Your task to perform on an android device: visit the assistant section in the google photos Image 0: 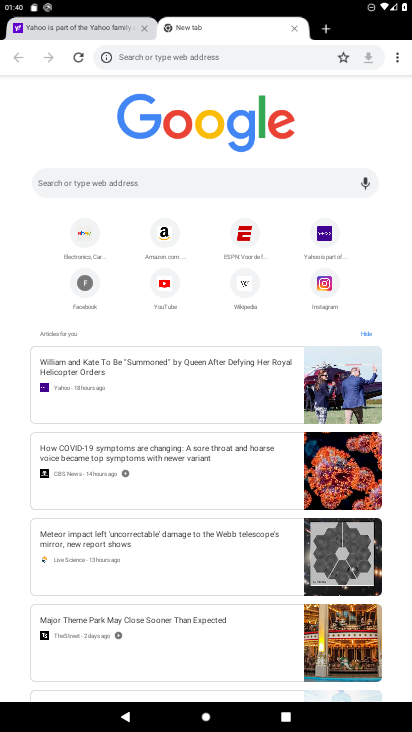
Step 0: press home button
Your task to perform on an android device: visit the assistant section in the google photos Image 1: 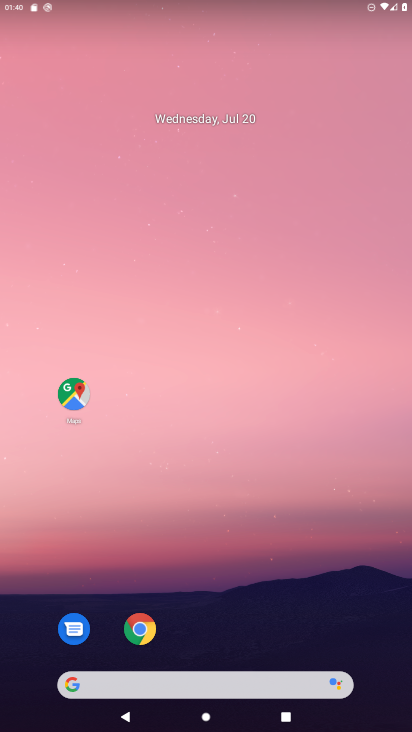
Step 1: drag from (160, 589) to (202, 249)
Your task to perform on an android device: visit the assistant section in the google photos Image 2: 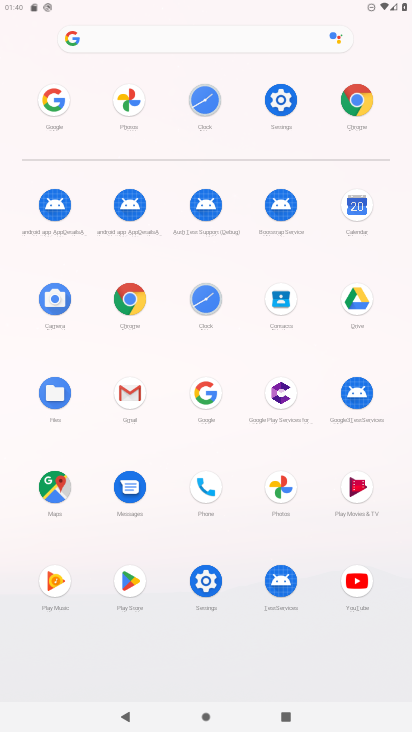
Step 2: click (281, 499)
Your task to perform on an android device: visit the assistant section in the google photos Image 3: 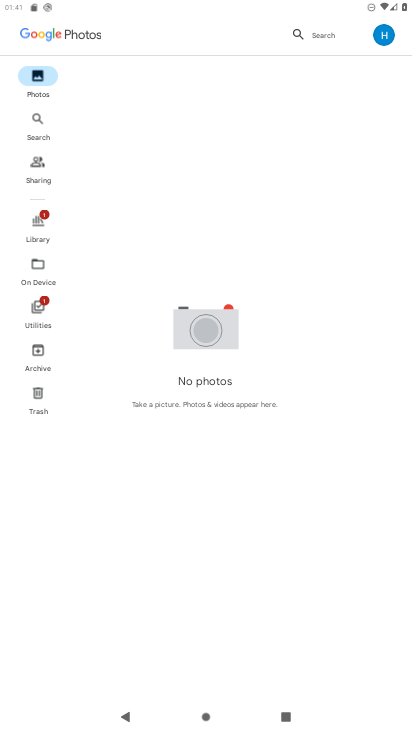
Step 3: click (35, 223)
Your task to perform on an android device: visit the assistant section in the google photos Image 4: 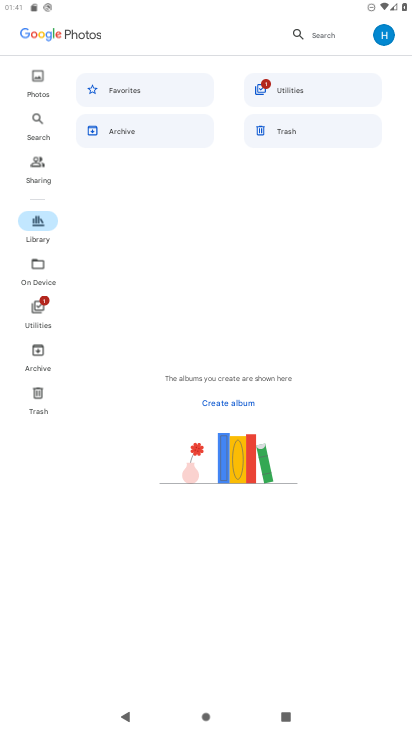
Step 4: click (35, 86)
Your task to perform on an android device: visit the assistant section in the google photos Image 5: 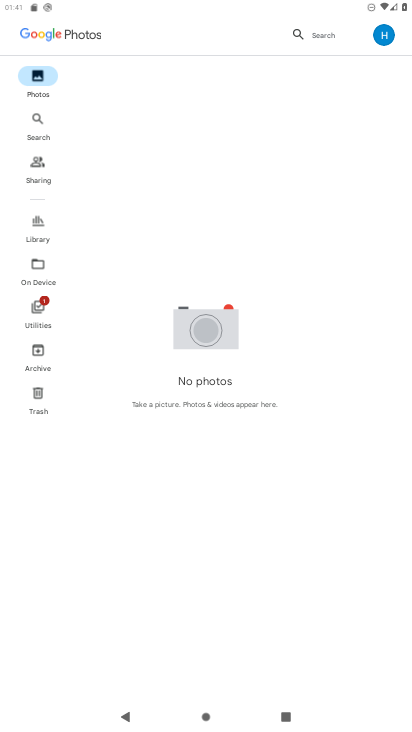
Step 5: task complete